Your task to perform on an android device: Open internet settings Image 0: 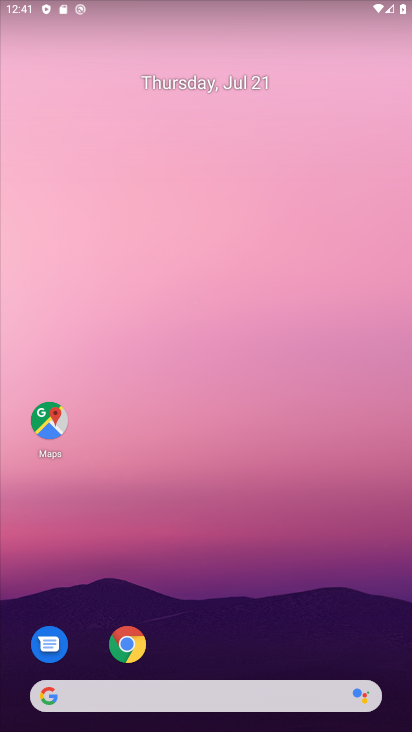
Step 0: drag from (228, 661) to (178, 68)
Your task to perform on an android device: Open internet settings Image 1: 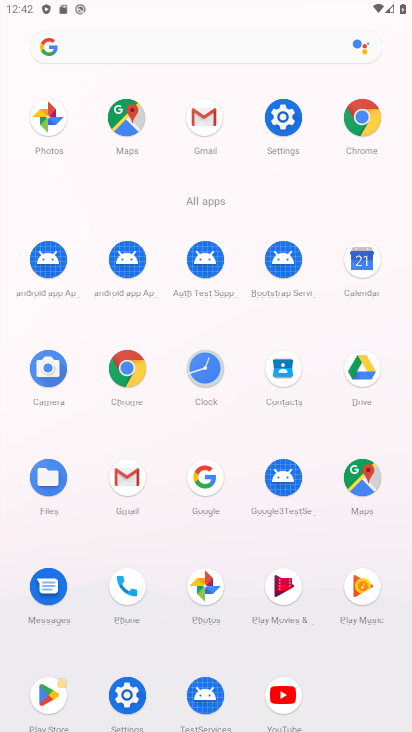
Step 1: click (120, 699)
Your task to perform on an android device: Open internet settings Image 2: 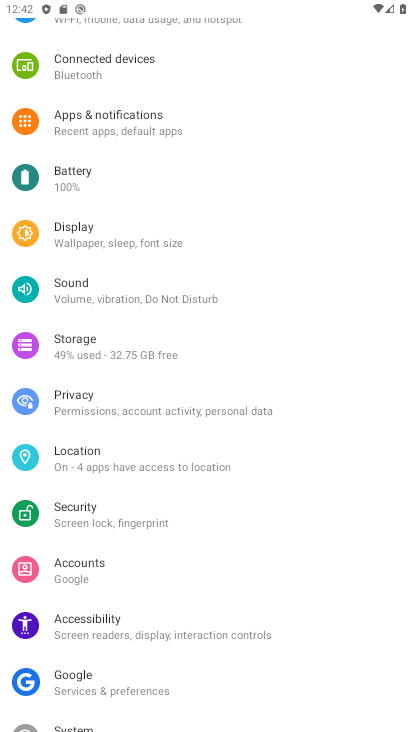
Step 2: task complete